Your task to perform on an android device: What's on my calendar tomorrow? Image 0: 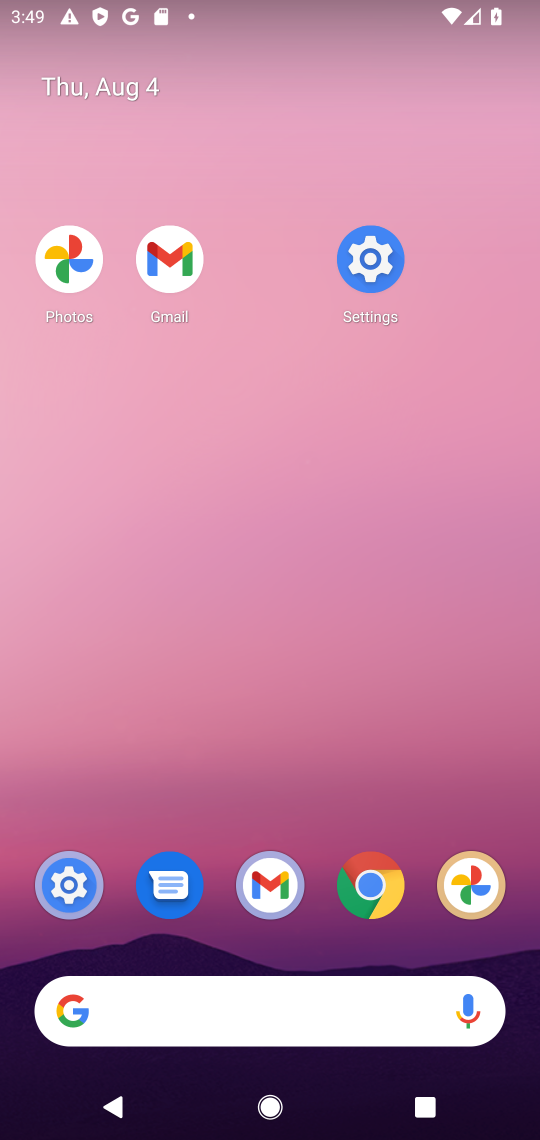
Step 0: drag from (311, 806) to (336, 137)
Your task to perform on an android device: What's on my calendar tomorrow? Image 1: 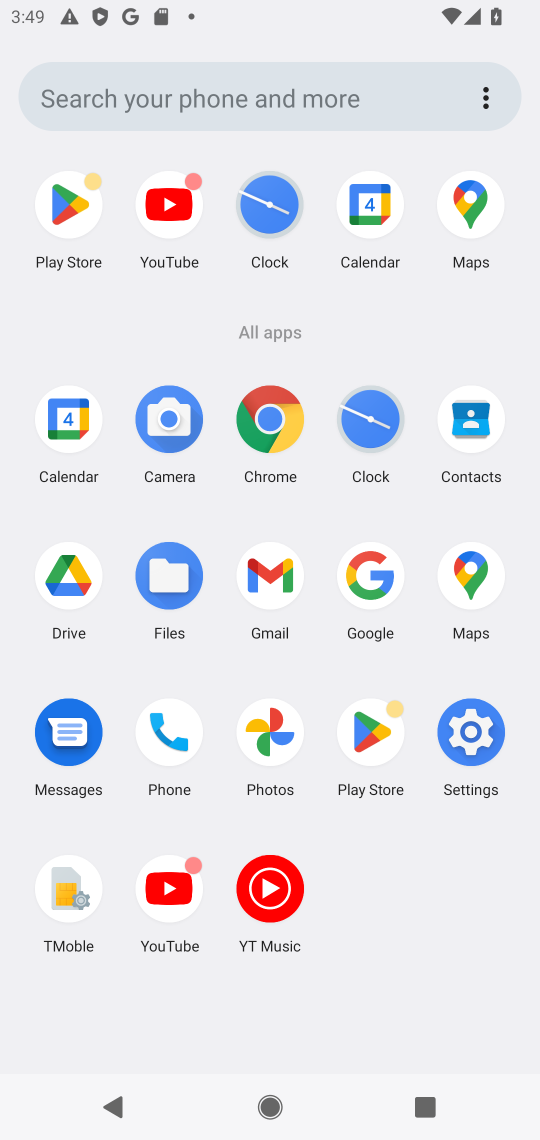
Step 1: drag from (359, 559) to (114, 419)
Your task to perform on an android device: What's on my calendar tomorrow? Image 2: 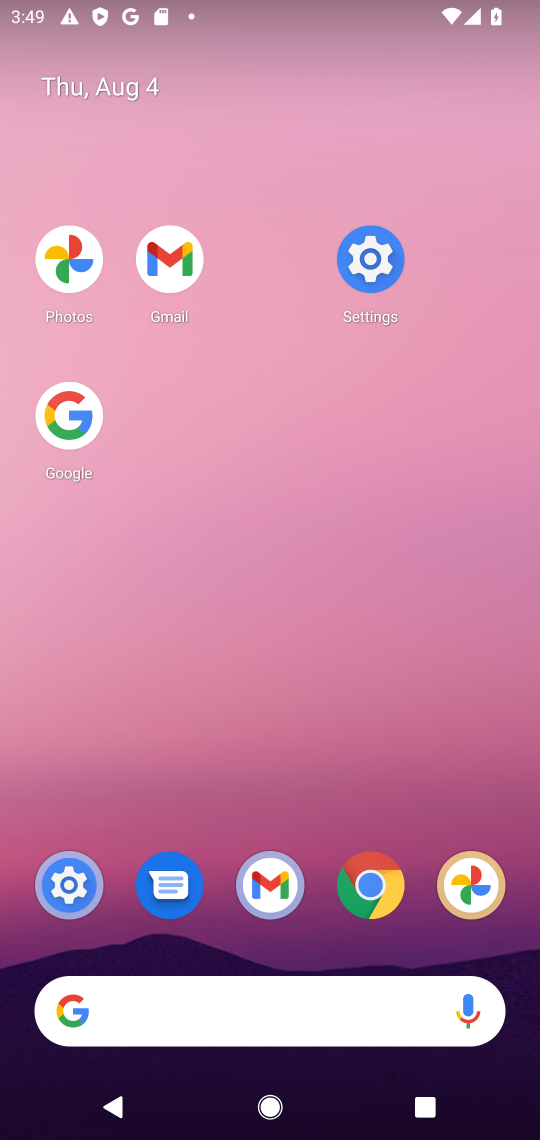
Step 2: click (79, 421)
Your task to perform on an android device: What's on my calendar tomorrow? Image 3: 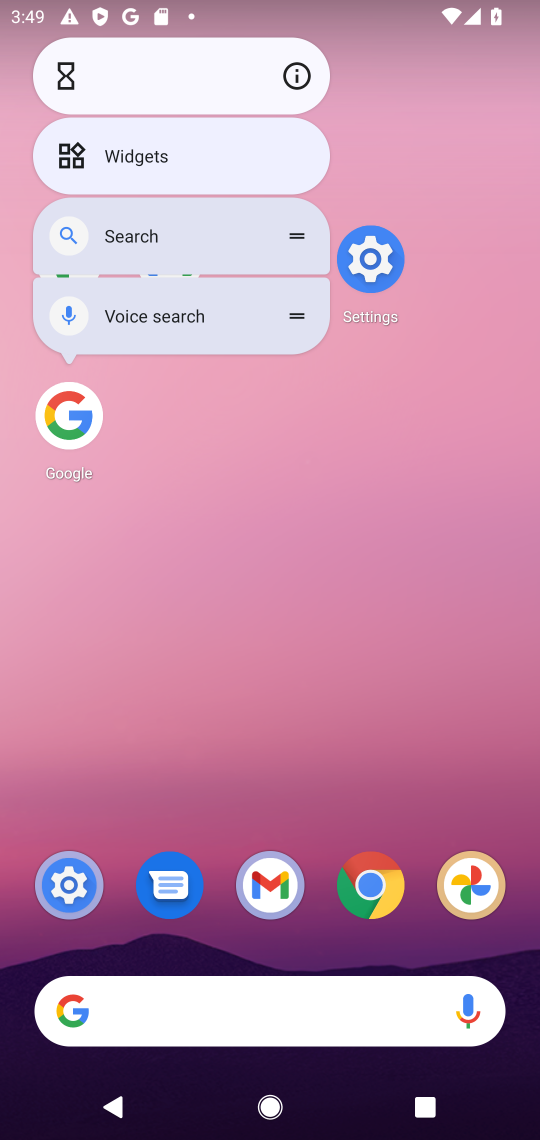
Step 3: click (79, 421)
Your task to perform on an android device: What's on my calendar tomorrow? Image 4: 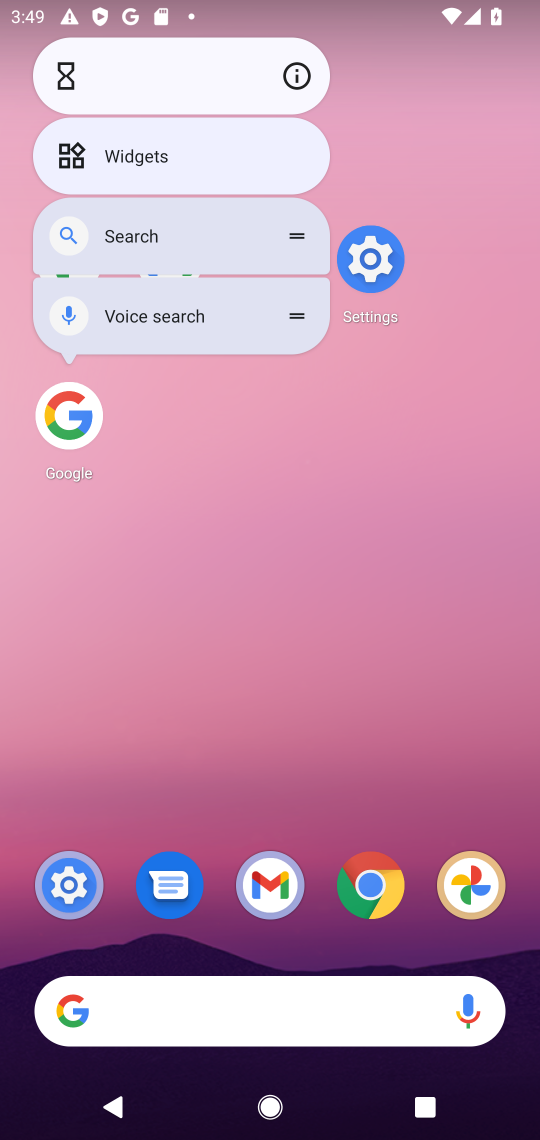
Step 4: click (79, 421)
Your task to perform on an android device: What's on my calendar tomorrow? Image 5: 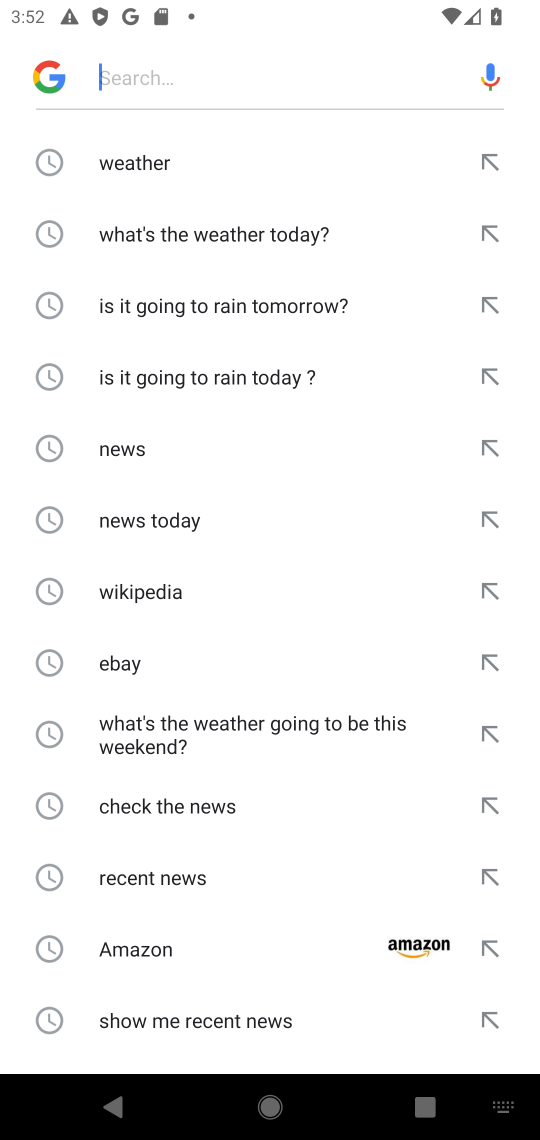
Step 5: press home button
Your task to perform on an android device: What's on my calendar tomorrow? Image 6: 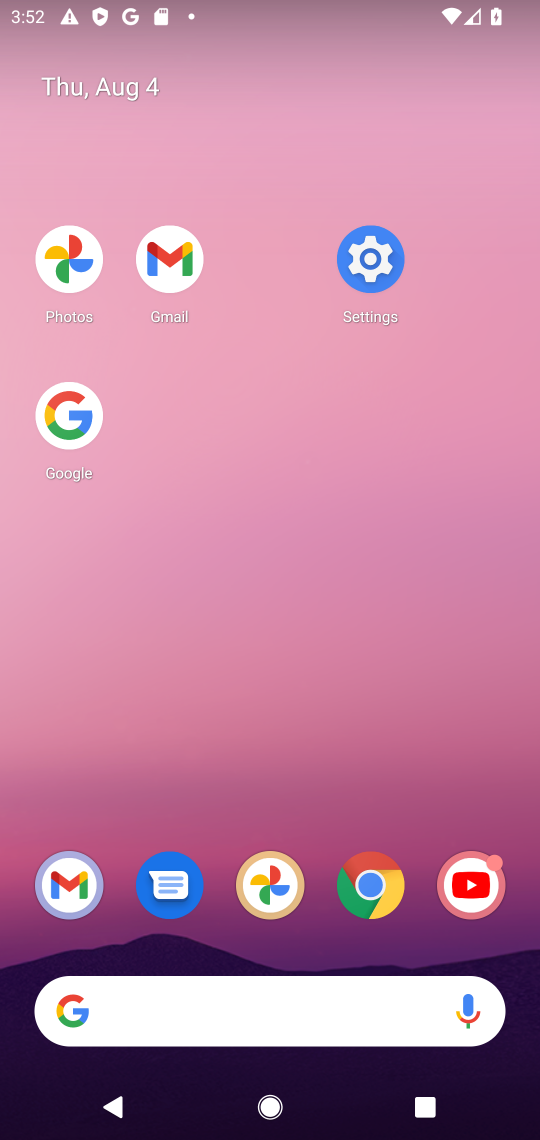
Step 6: click (395, 256)
Your task to perform on an android device: What's on my calendar tomorrow? Image 7: 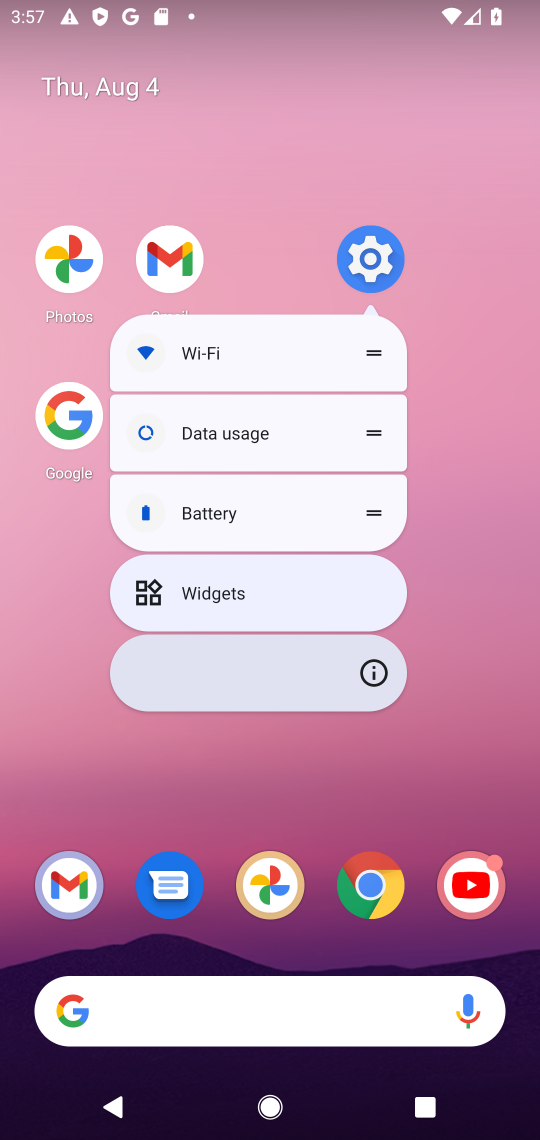
Step 7: click (526, 636)
Your task to perform on an android device: What's on my calendar tomorrow? Image 8: 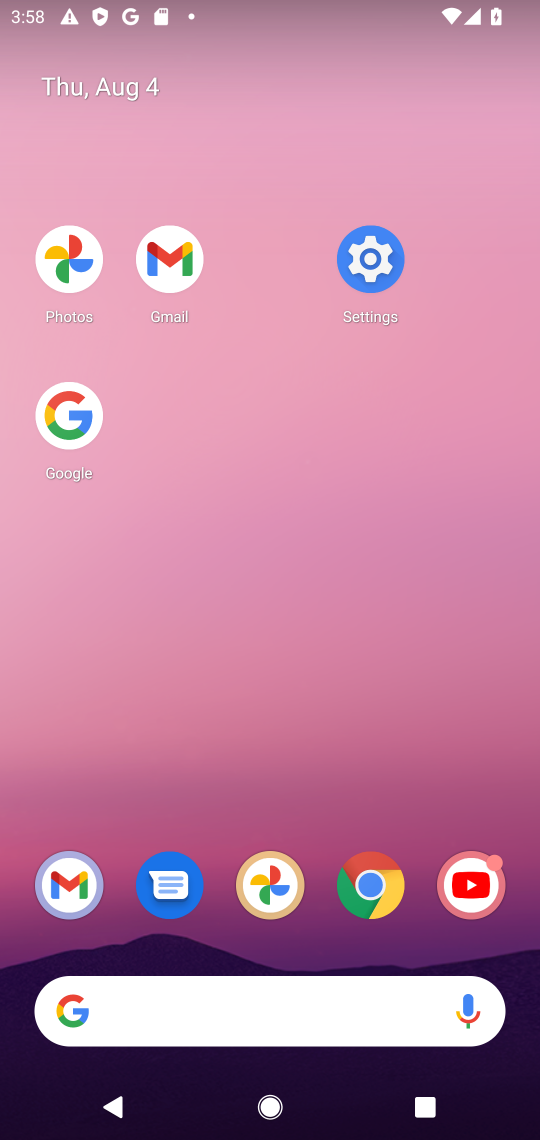
Step 8: drag from (318, 682) to (288, 155)
Your task to perform on an android device: What's on my calendar tomorrow? Image 9: 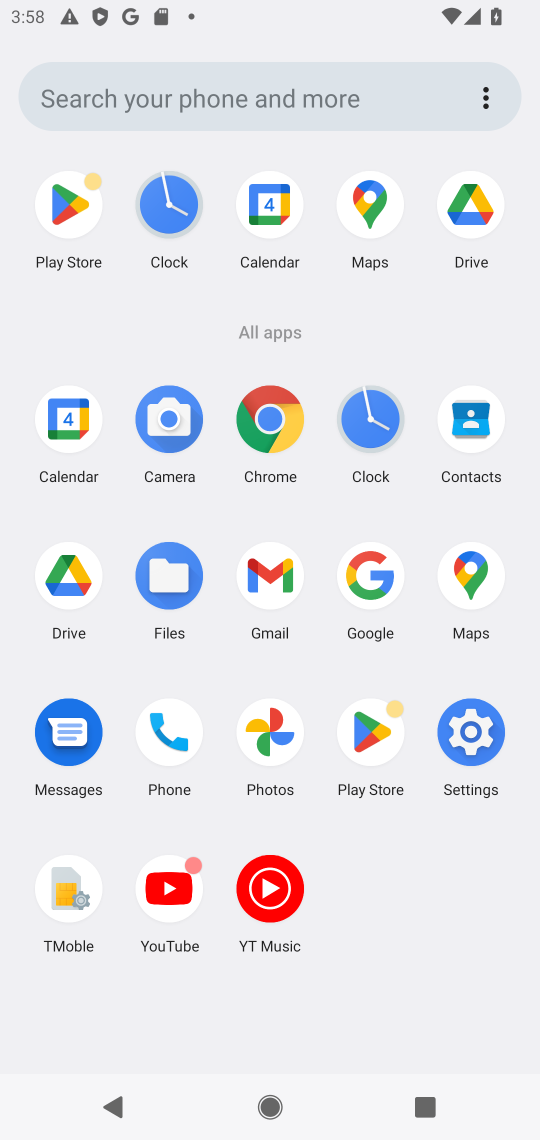
Step 9: drag from (260, 193) to (168, 431)
Your task to perform on an android device: What's on my calendar tomorrow? Image 10: 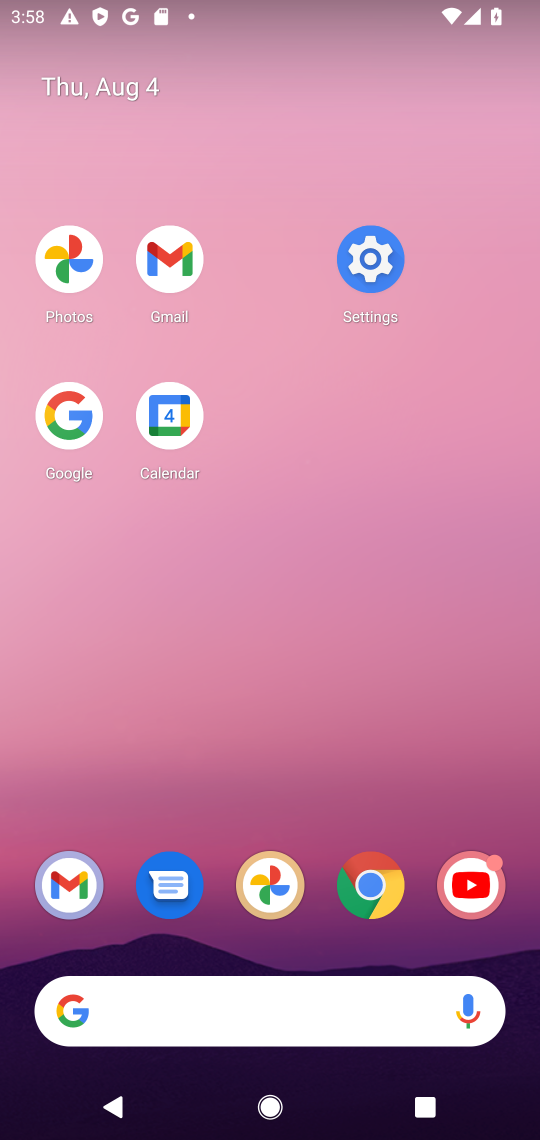
Step 10: click (174, 411)
Your task to perform on an android device: What's on my calendar tomorrow? Image 11: 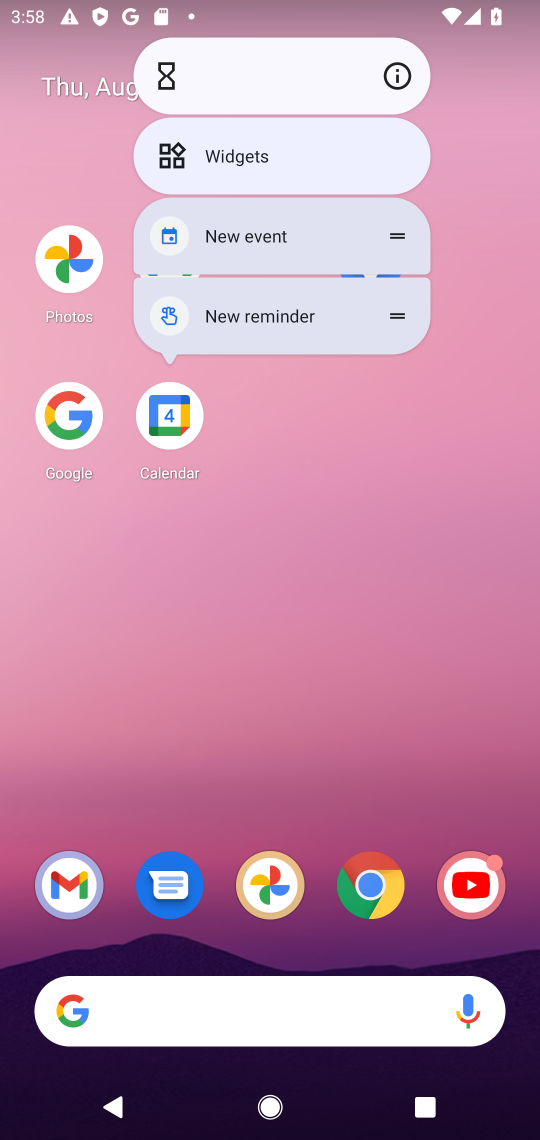
Step 11: click (174, 411)
Your task to perform on an android device: What's on my calendar tomorrow? Image 12: 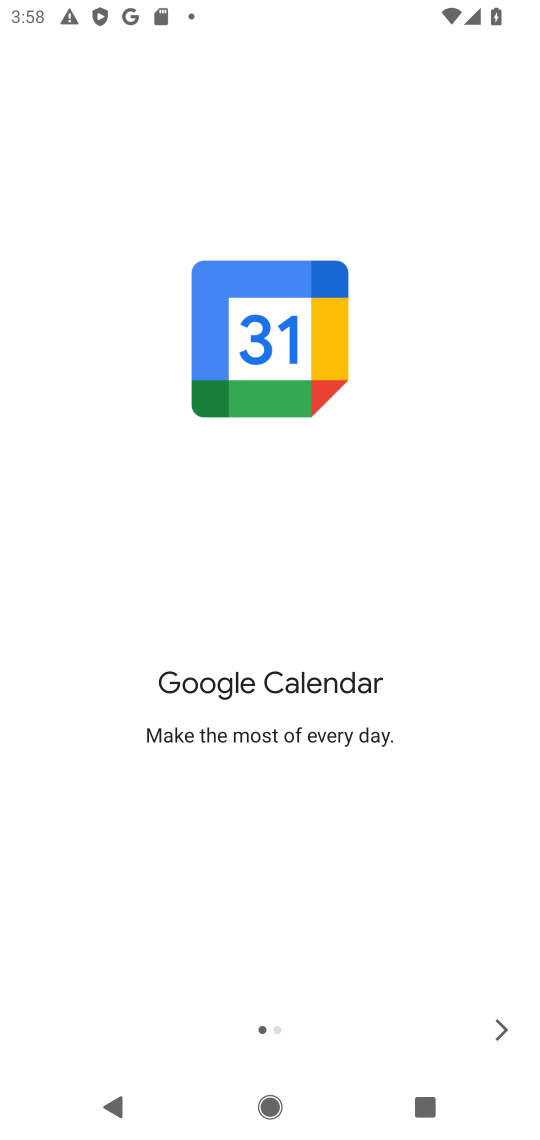
Step 12: click (514, 1037)
Your task to perform on an android device: What's on my calendar tomorrow? Image 13: 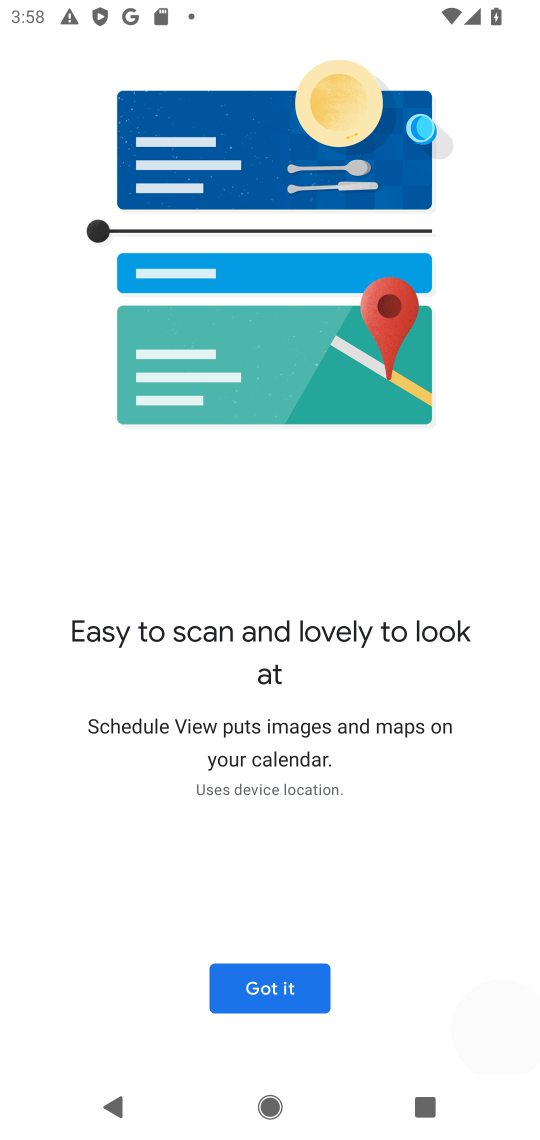
Step 13: click (514, 1037)
Your task to perform on an android device: What's on my calendar tomorrow? Image 14: 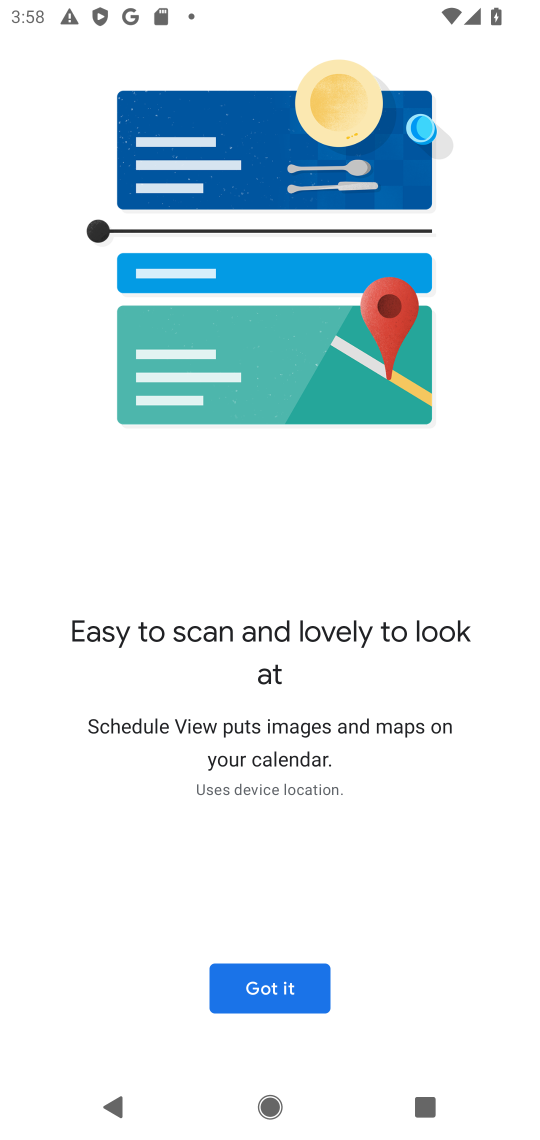
Step 14: click (292, 1002)
Your task to perform on an android device: What's on my calendar tomorrow? Image 15: 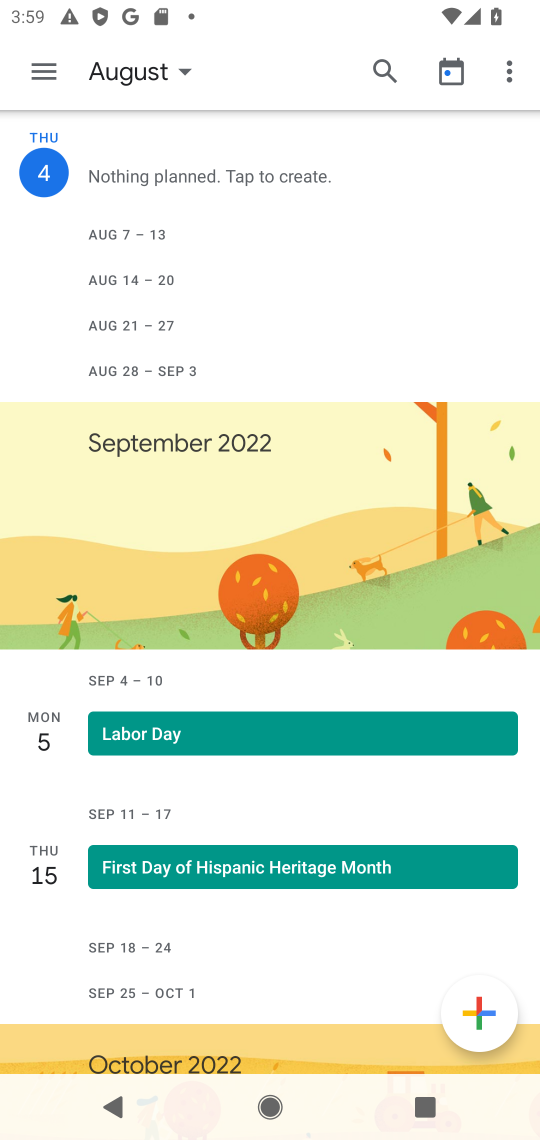
Step 15: click (125, 82)
Your task to perform on an android device: What's on my calendar tomorrow? Image 16: 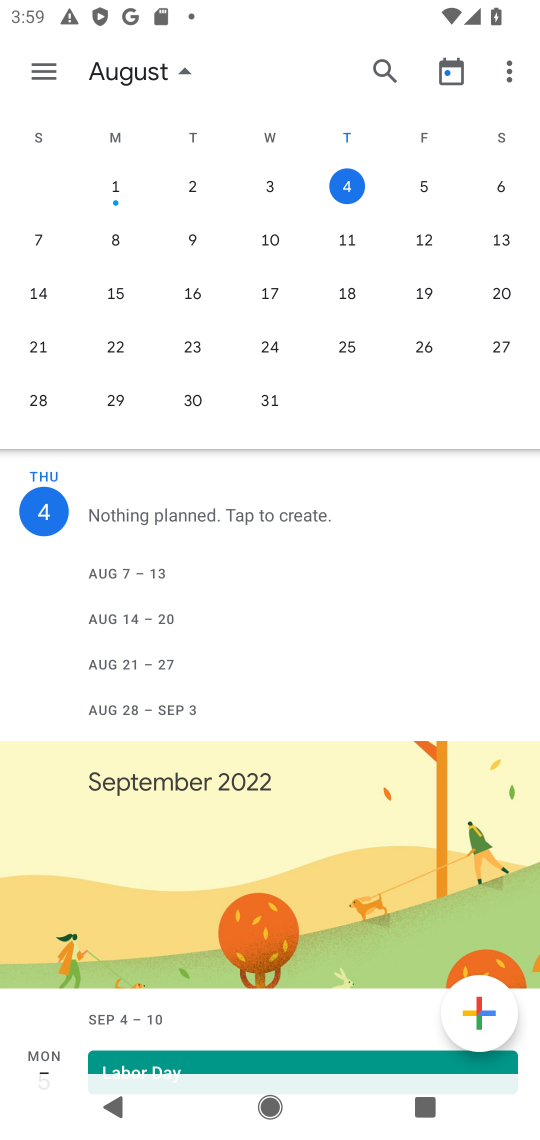
Step 16: click (417, 189)
Your task to perform on an android device: What's on my calendar tomorrow? Image 17: 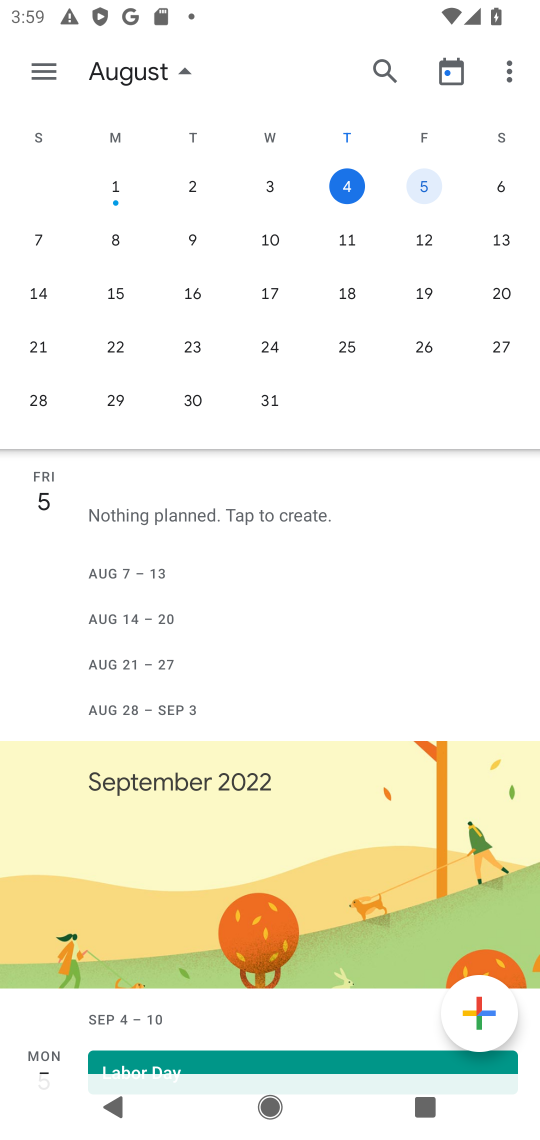
Step 17: click (210, 537)
Your task to perform on an android device: What's on my calendar tomorrow? Image 18: 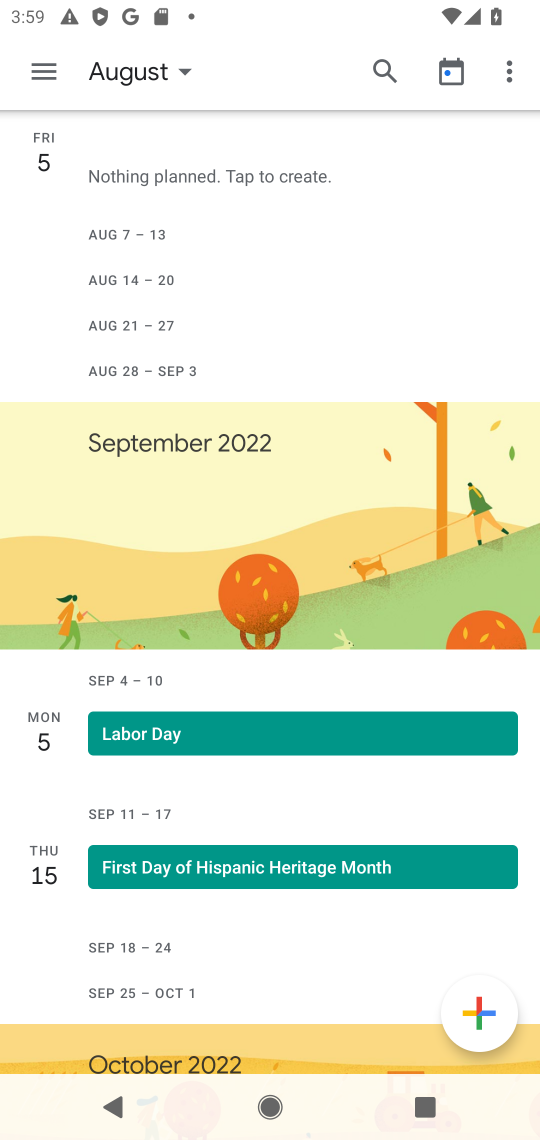
Step 18: task complete